Your task to perform on an android device: turn on priority inbox in the gmail app Image 0: 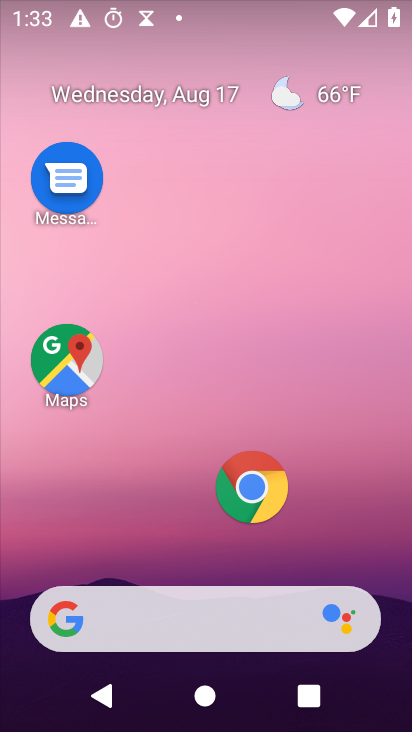
Step 0: drag from (246, 225) to (249, 149)
Your task to perform on an android device: turn on priority inbox in the gmail app Image 1: 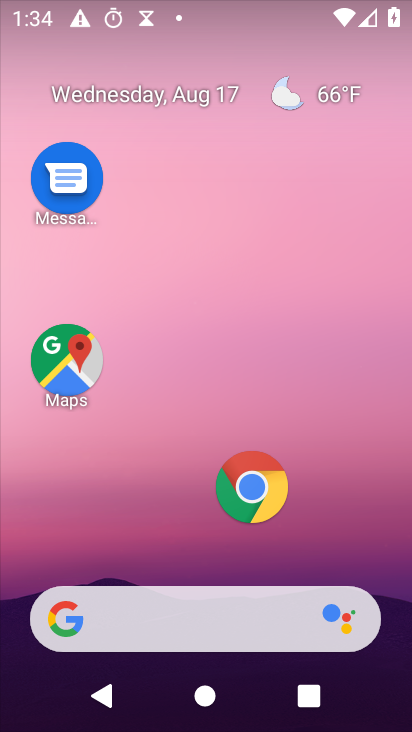
Step 1: drag from (188, 429) to (213, 0)
Your task to perform on an android device: turn on priority inbox in the gmail app Image 2: 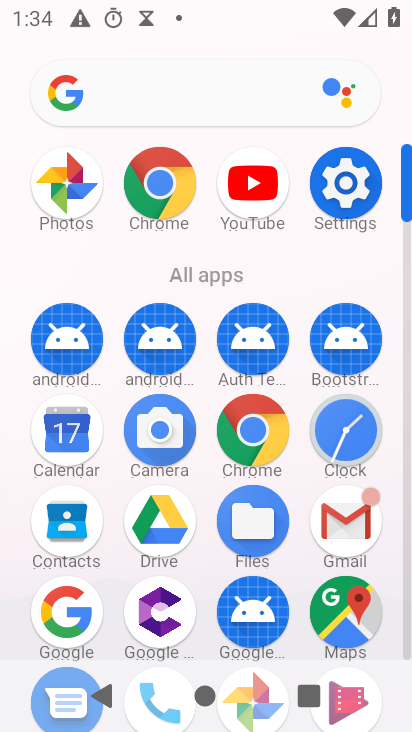
Step 2: click (352, 527)
Your task to perform on an android device: turn on priority inbox in the gmail app Image 3: 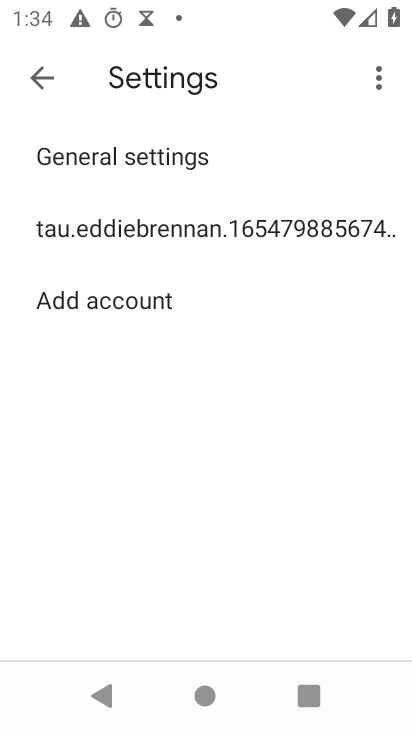
Step 3: click (187, 237)
Your task to perform on an android device: turn on priority inbox in the gmail app Image 4: 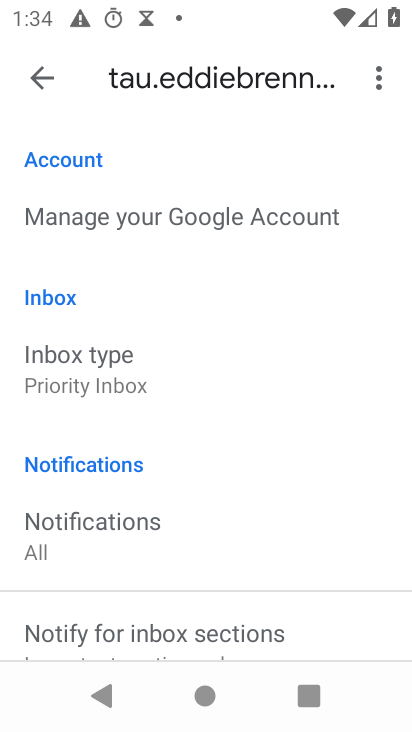
Step 4: click (68, 363)
Your task to perform on an android device: turn on priority inbox in the gmail app Image 5: 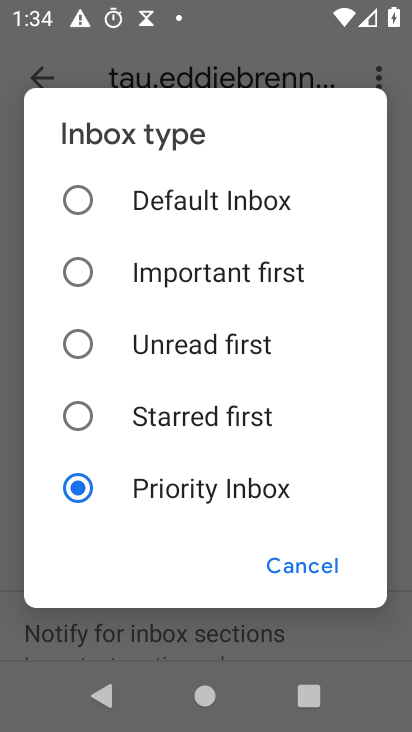
Step 5: task complete